Your task to perform on an android device: find which apps use the phone's location Image 0: 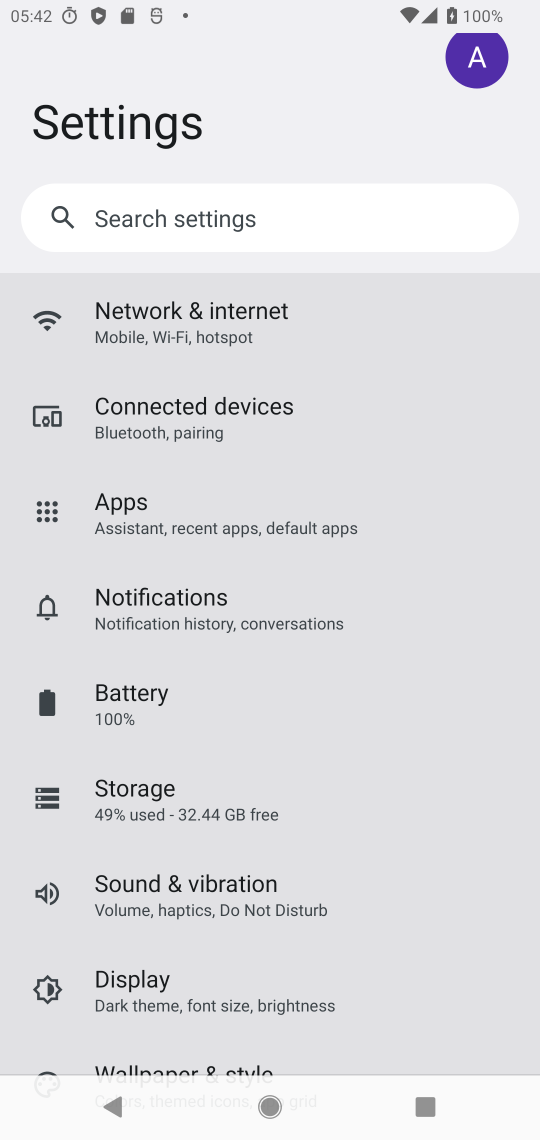
Step 0: drag from (336, 989) to (300, 462)
Your task to perform on an android device: find which apps use the phone's location Image 1: 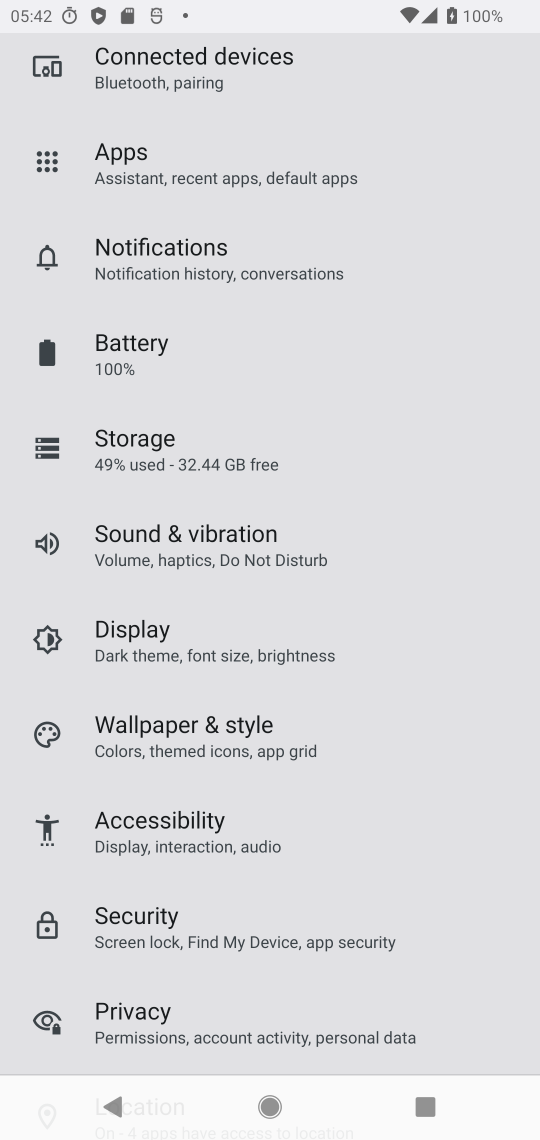
Step 1: drag from (466, 962) to (521, 263)
Your task to perform on an android device: find which apps use the phone's location Image 2: 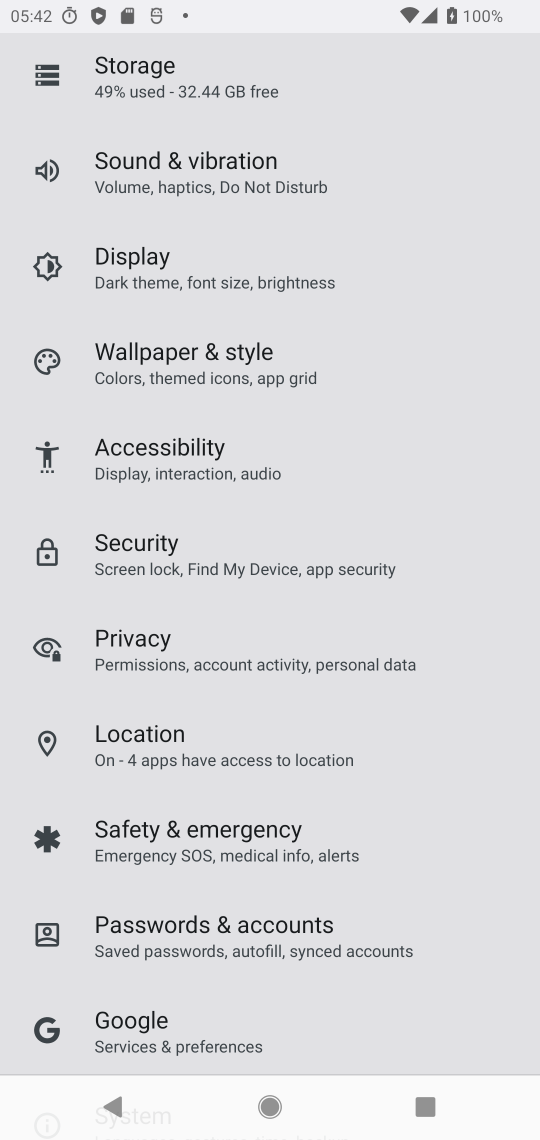
Step 2: drag from (458, 1000) to (490, 518)
Your task to perform on an android device: find which apps use the phone's location Image 3: 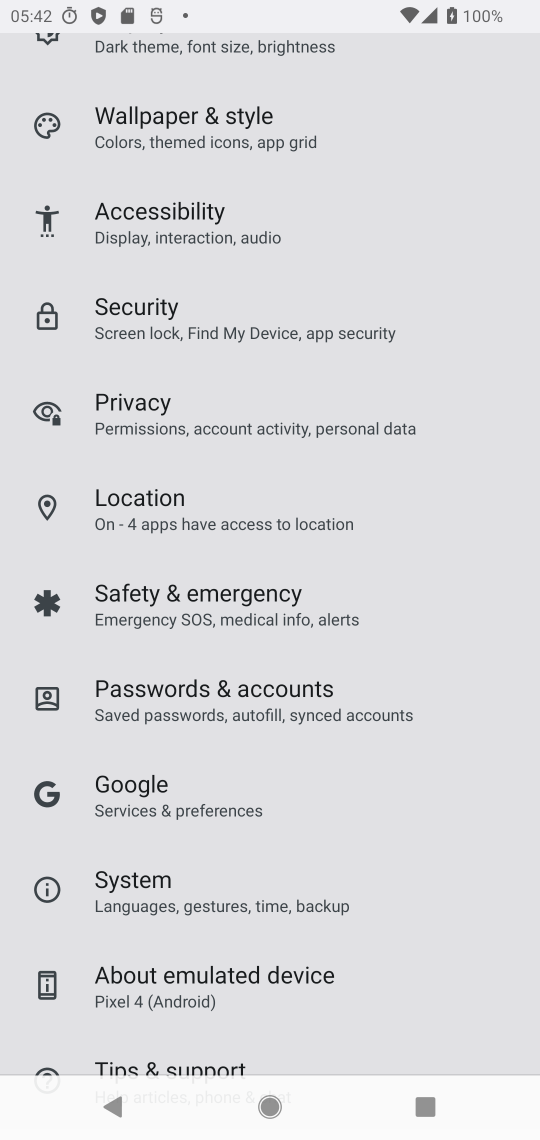
Step 3: click (152, 520)
Your task to perform on an android device: find which apps use the phone's location Image 4: 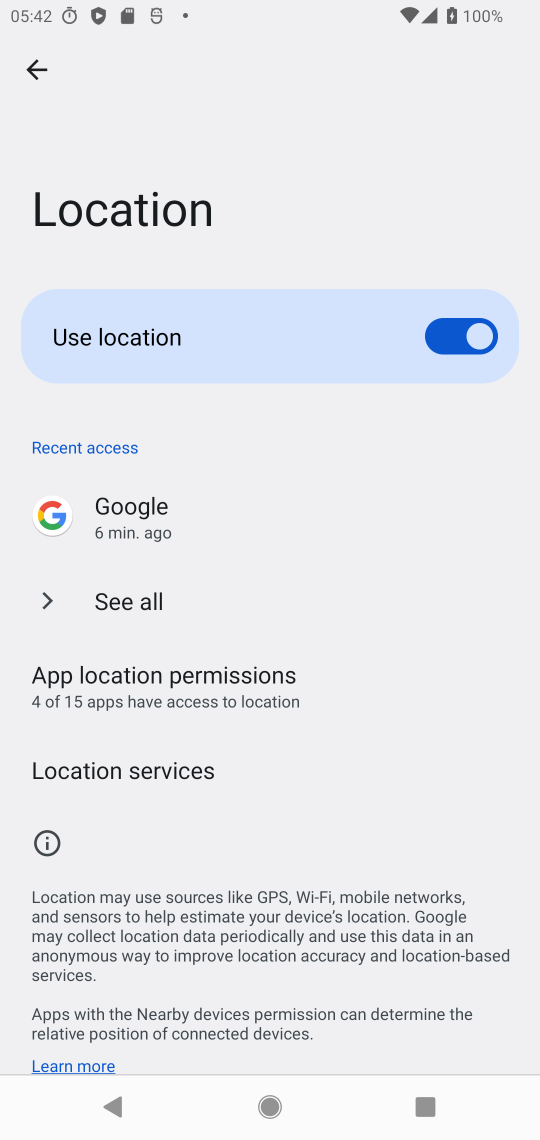
Step 4: click (133, 774)
Your task to perform on an android device: find which apps use the phone's location Image 5: 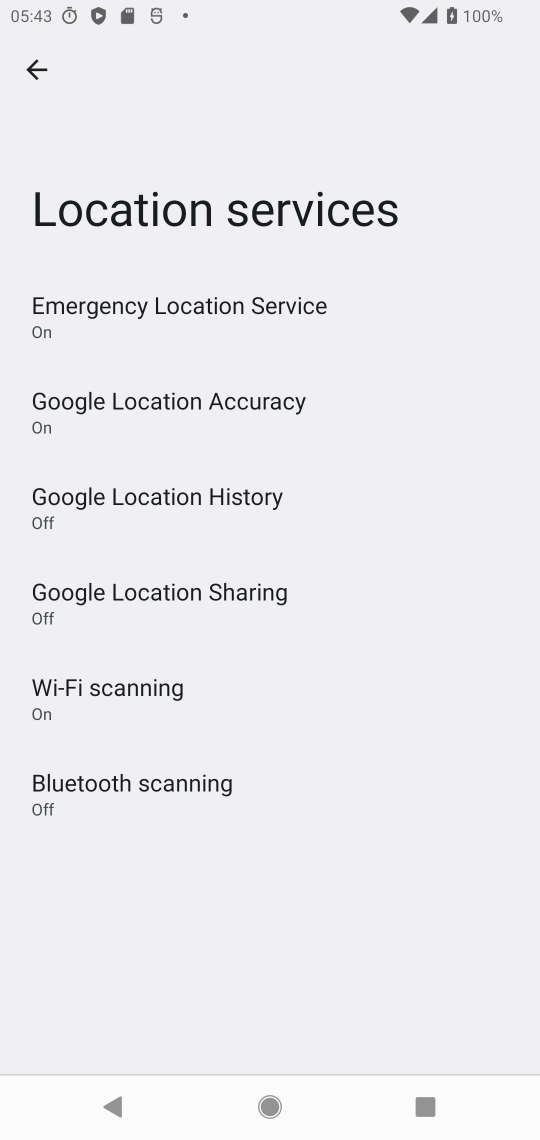
Step 5: click (26, 66)
Your task to perform on an android device: find which apps use the phone's location Image 6: 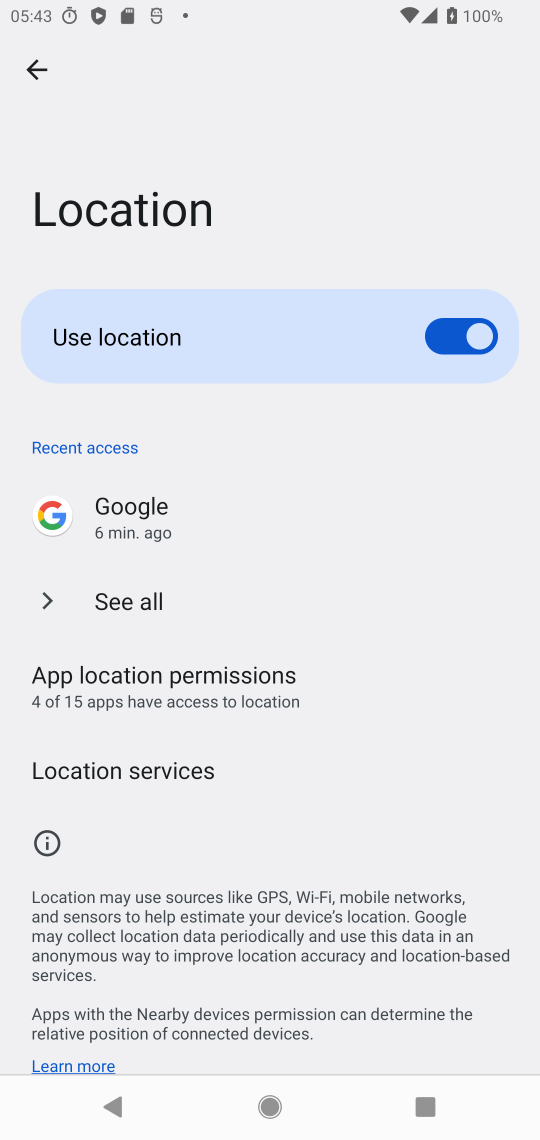
Step 6: click (211, 709)
Your task to perform on an android device: find which apps use the phone's location Image 7: 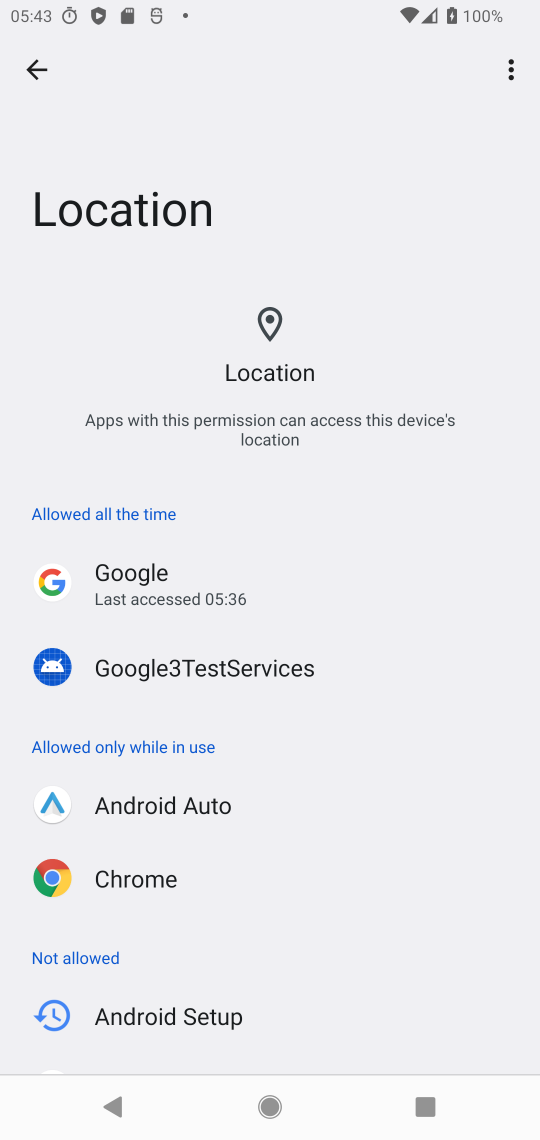
Step 7: task complete